Your task to perform on an android device: turn on improve location accuracy Image 0: 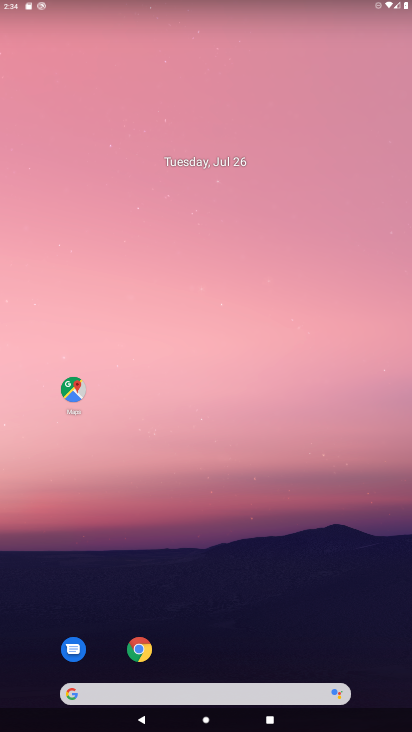
Step 0: drag from (228, 683) to (96, 7)
Your task to perform on an android device: turn on improve location accuracy Image 1: 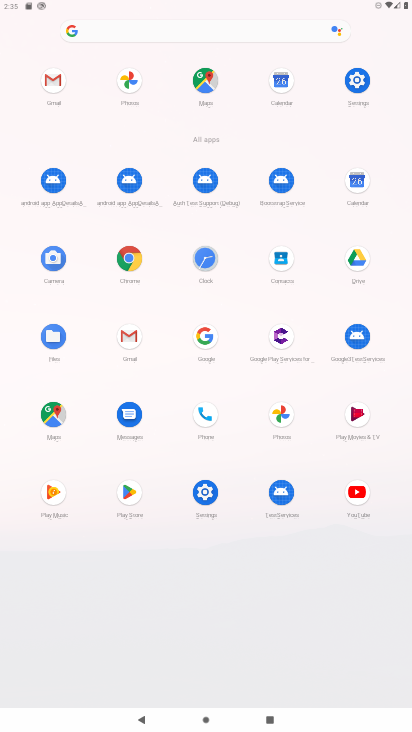
Step 1: click (201, 531)
Your task to perform on an android device: turn on improve location accuracy Image 2: 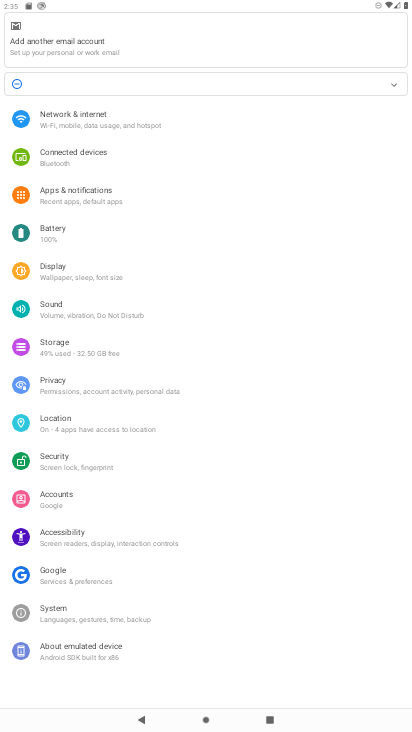
Step 2: click (88, 431)
Your task to perform on an android device: turn on improve location accuracy Image 3: 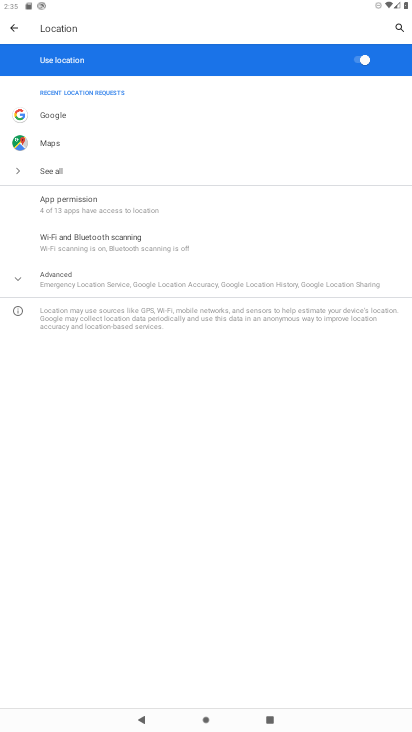
Step 3: click (52, 282)
Your task to perform on an android device: turn on improve location accuracy Image 4: 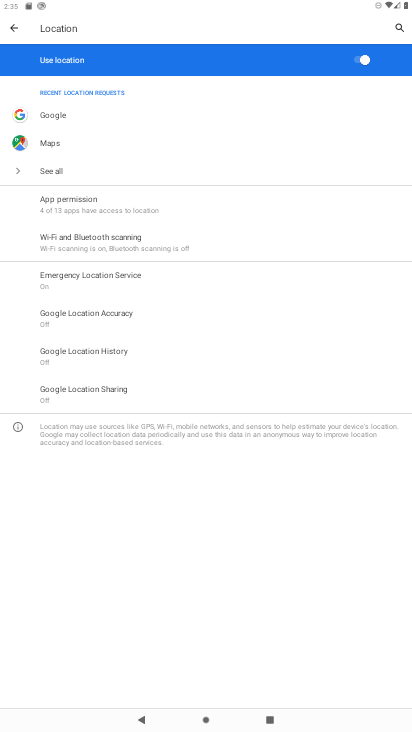
Step 4: click (106, 310)
Your task to perform on an android device: turn on improve location accuracy Image 5: 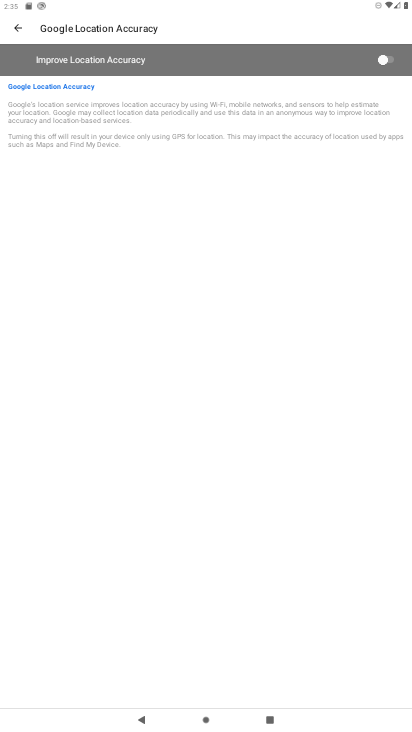
Step 5: click (381, 55)
Your task to perform on an android device: turn on improve location accuracy Image 6: 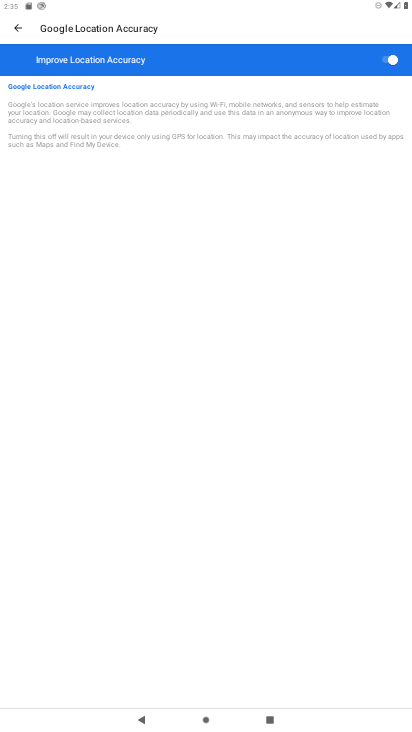
Step 6: task complete